Your task to perform on an android device: change text size in settings app Image 0: 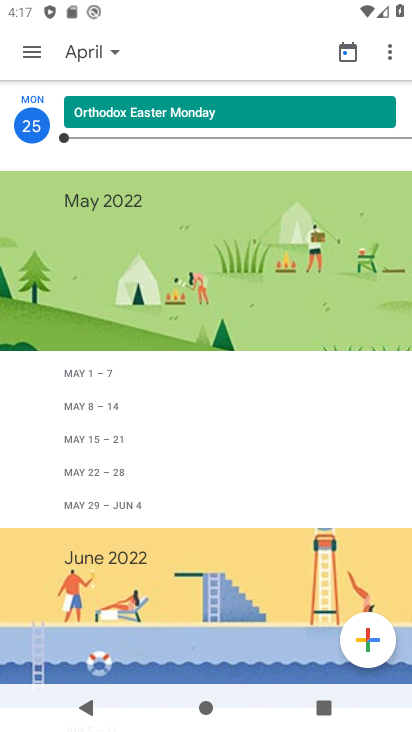
Step 0: press back button
Your task to perform on an android device: change text size in settings app Image 1: 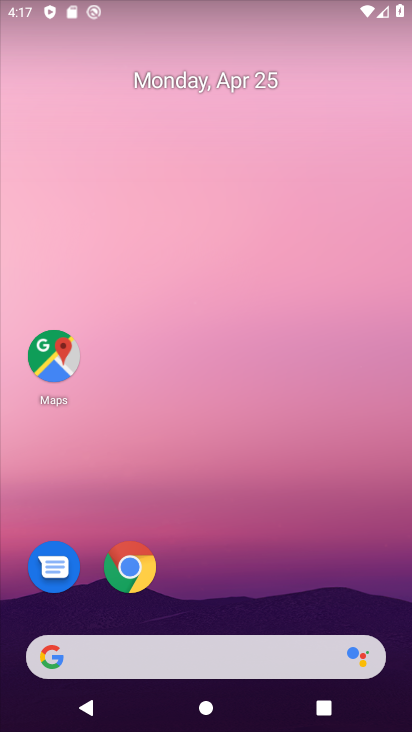
Step 1: drag from (250, 376) to (314, 79)
Your task to perform on an android device: change text size in settings app Image 2: 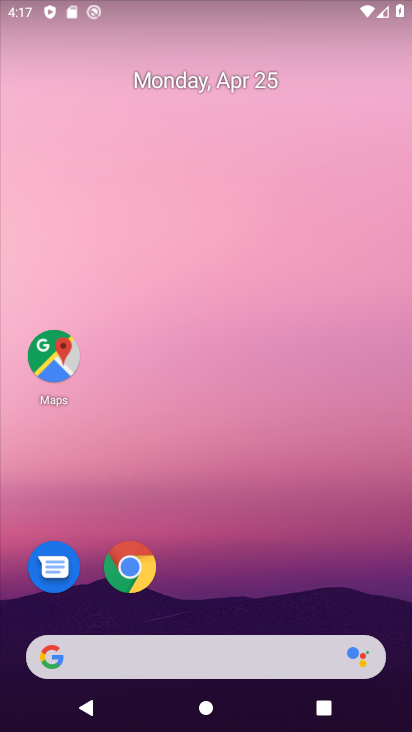
Step 2: drag from (255, 451) to (296, 77)
Your task to perform on an android device: change text size in settings app Image 3: 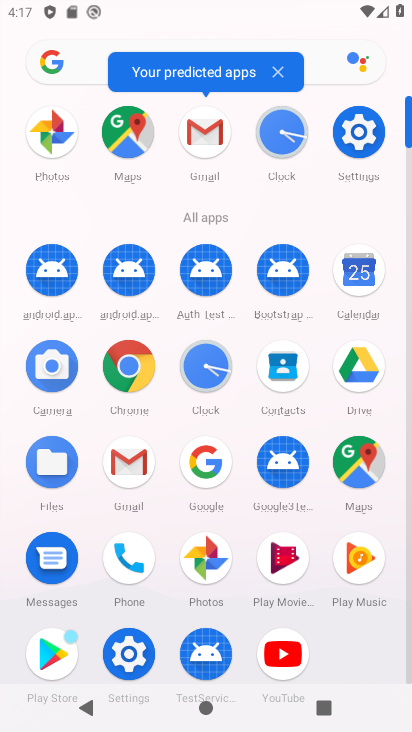
Step 3: click (363, 127)
Your task to perform on an android device: change text size in settings app Image 4: 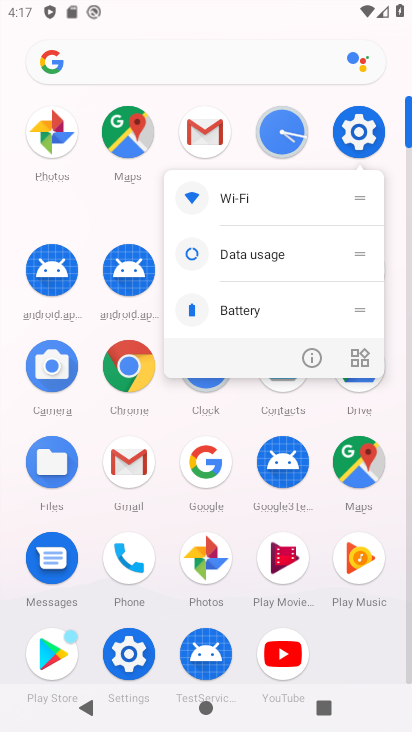
Step 4: click (358, 129)
Your task to perform on an android device: change text size in settings app Image 5: 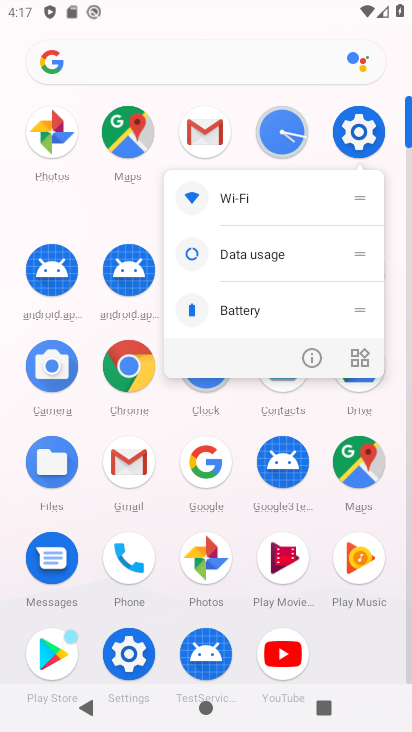
Step 5: click (363, 129)
Your task to perform on an android device: change text size in settings app Image 6: 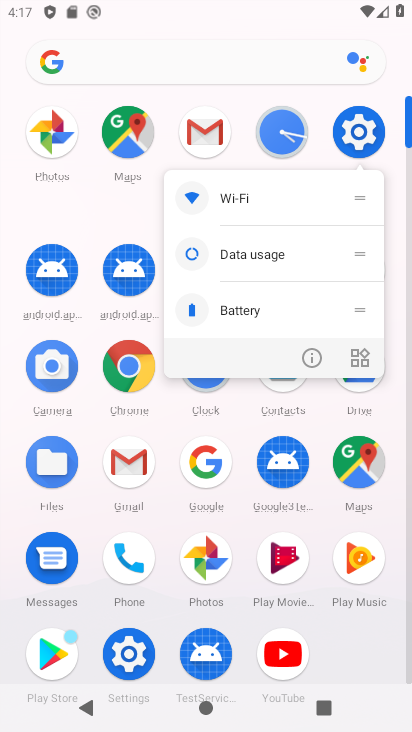
Step 6: click (356, 130)
Your task to perform on an android device: change text size in settings app Image 7: 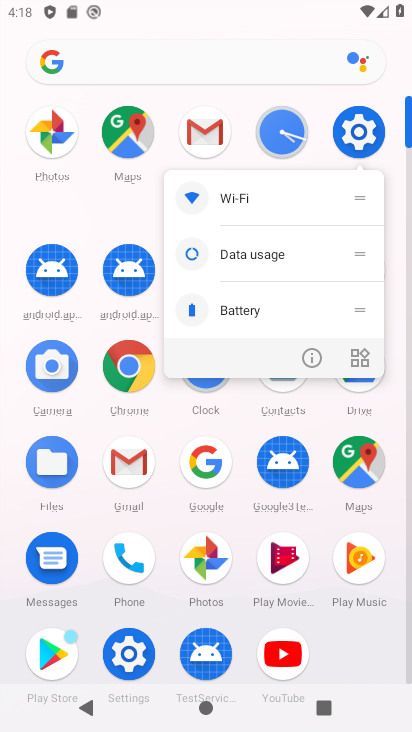
Step 7: click (346, 142)
Your task to perform on an android device: change text size in settings app Image 8: 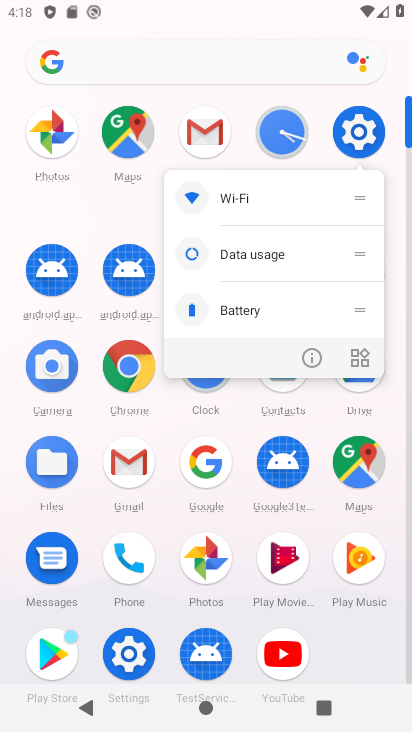
Step 8: click (358, 131)
Your task to perform on an android device: change text size in settings app Image 9: 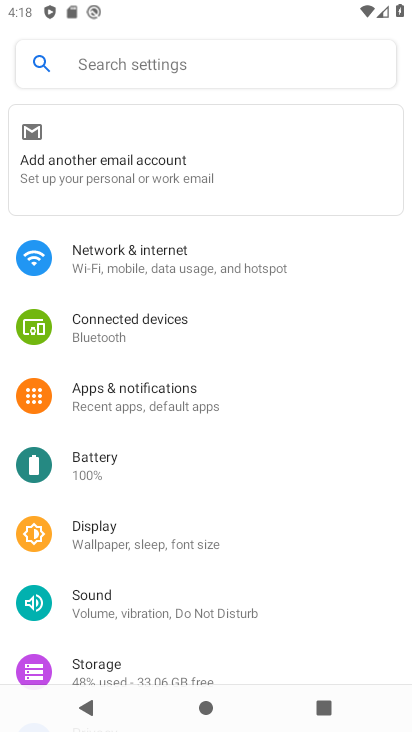
Step 9: click (135, 66)
Your task to perform on an android device: change text size in settings app Image 10: 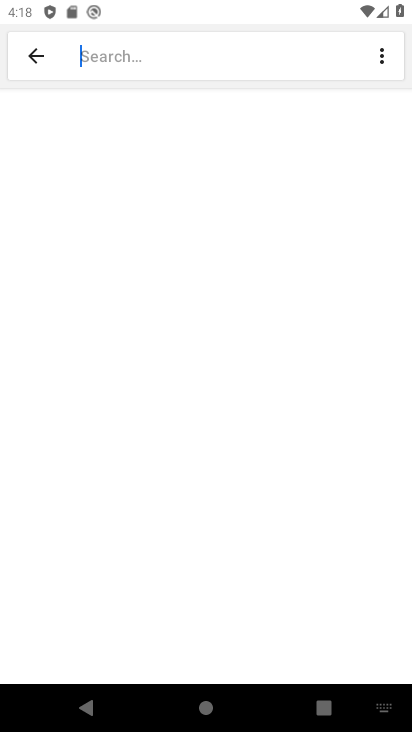
Step 10: type "text size"
Your task to perform on an android device: change text size in settings app Image 11: 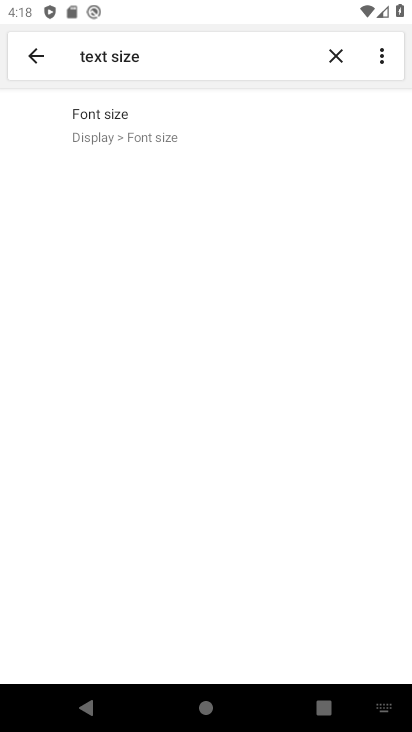
Step 11: click (112, 137)
Your task to perform on an android device: change text size in settings app Image 12: 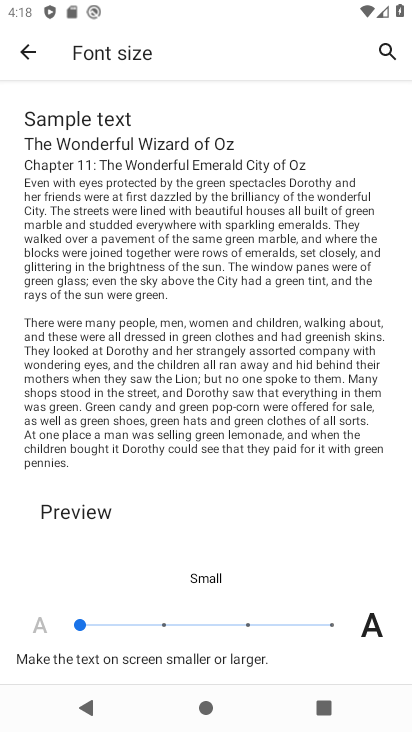
Step 12: task complete